Your task to perform on an android device: Is it going to rain this weekend? Image 0: 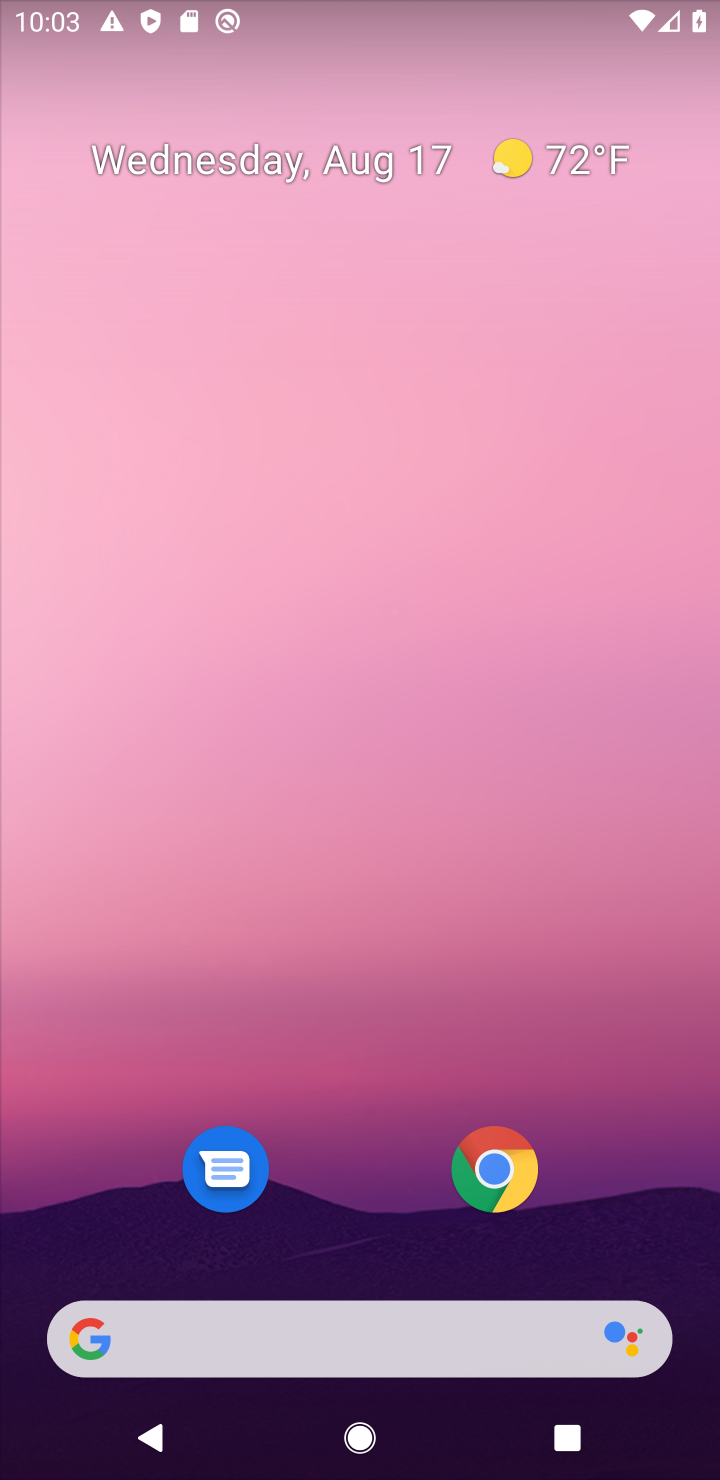
Step 0: drag from (313, 1069) to (350, 2)
Your task to perform on an android device: Is it going to rain this weekend? Image 1: 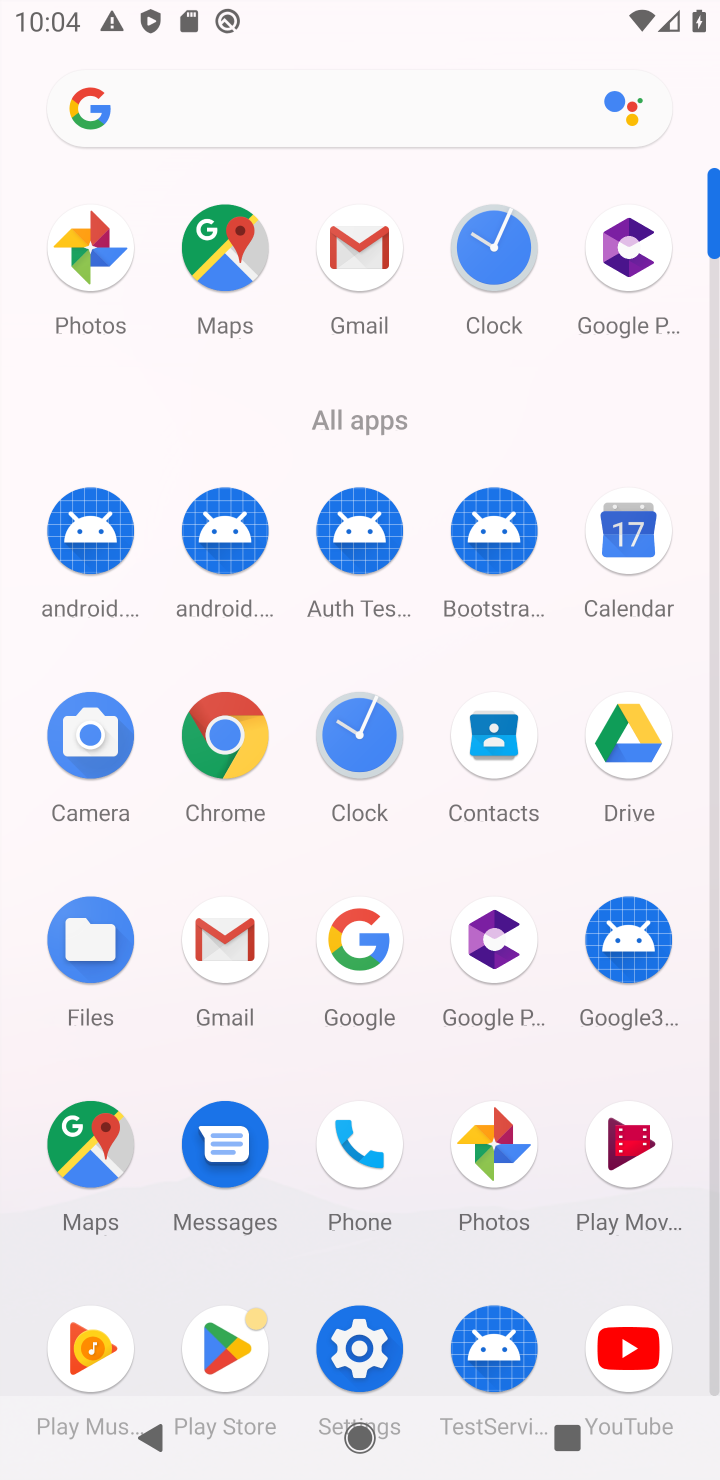
Step 1: click (352, 963)
Your task to perform on an android device: Is it going to rain this weekend? Image 2: 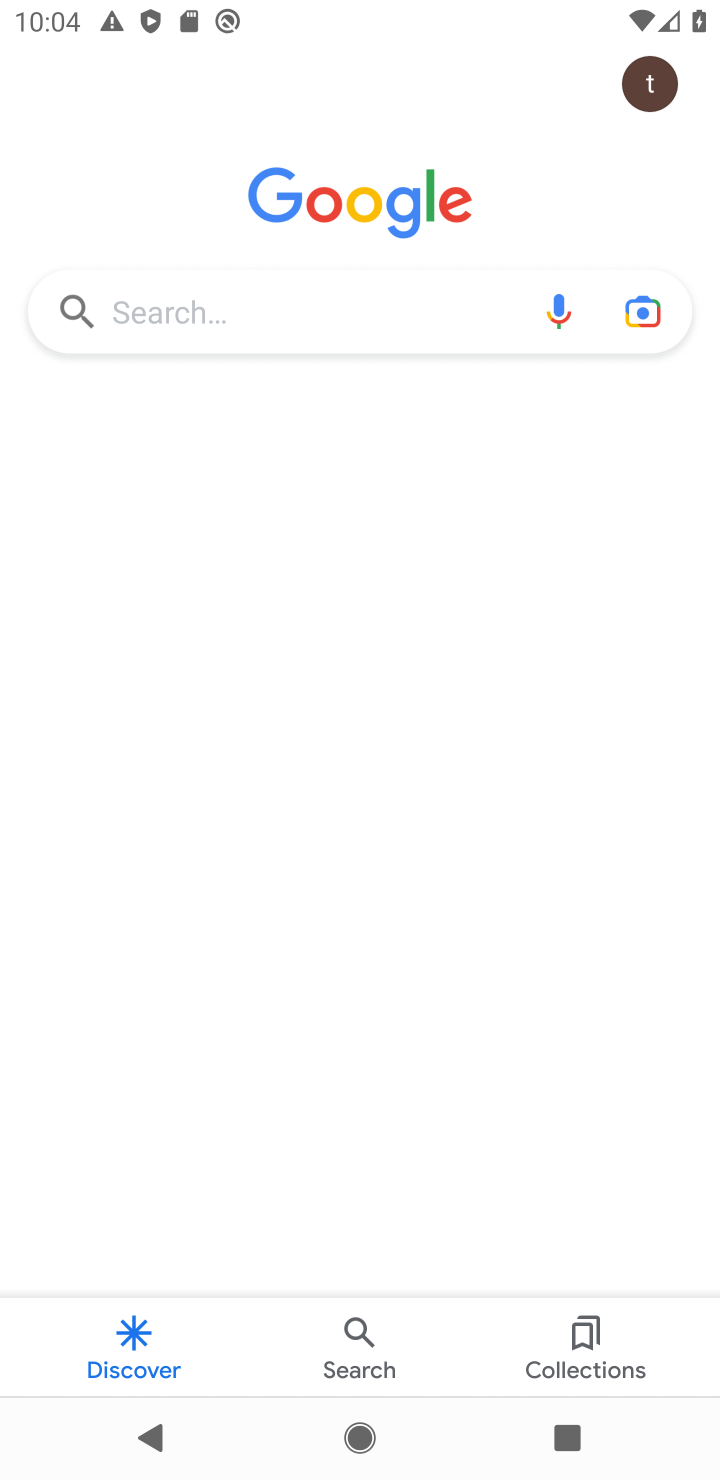
Step 2: click (204, 311)
Your task to perform on an android device: Is it going to rain this weekend? Image 3: 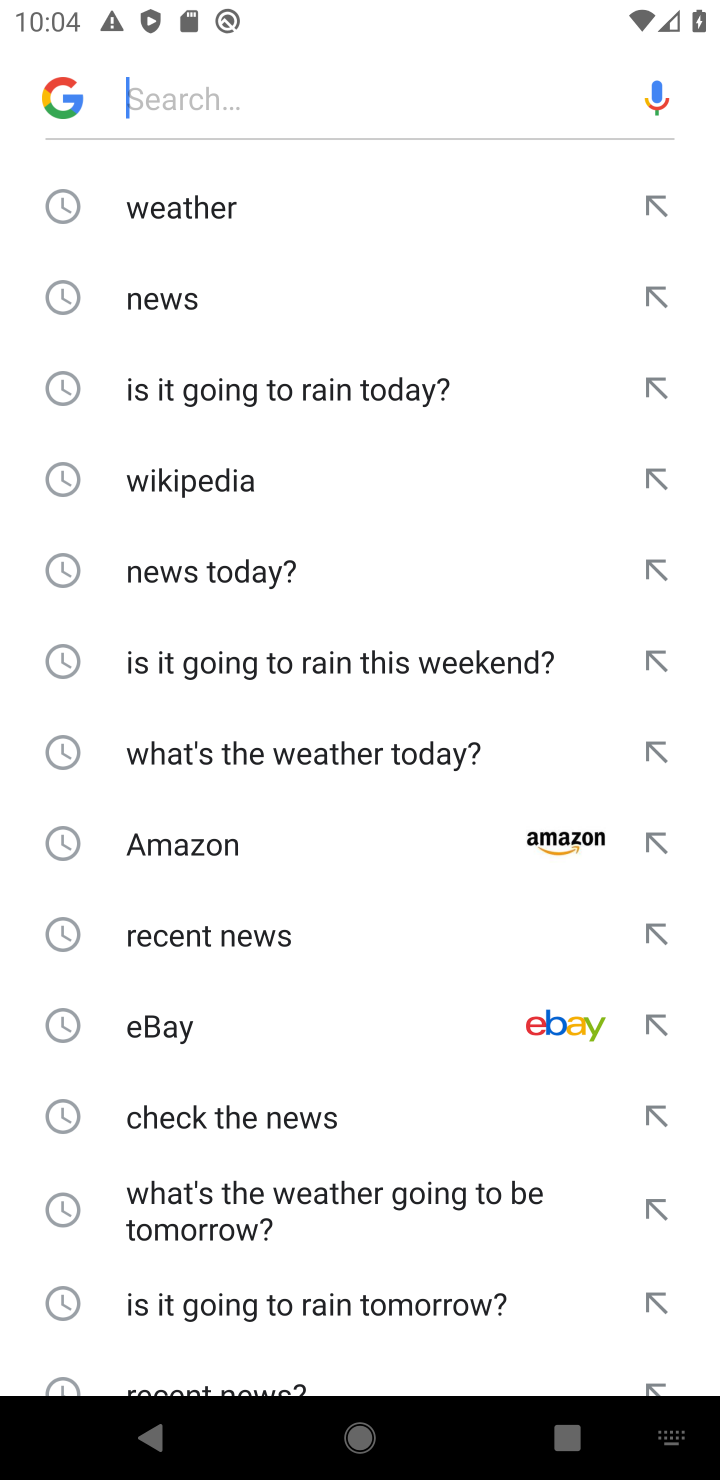
Step 3: type "Is it going to rain this weekend?"
Your task to perform on an android device: Is it going to rain this weekend? Image 4: 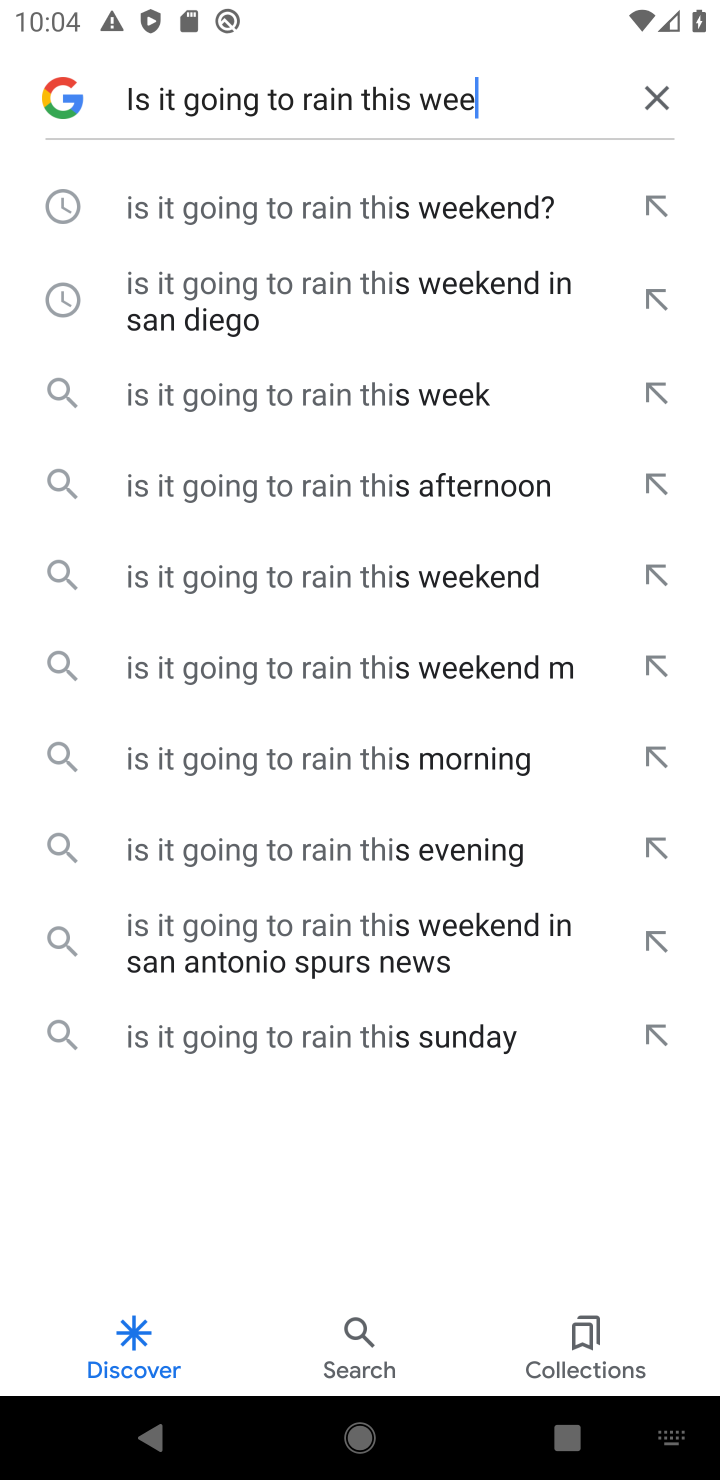
Step 4: press enter
Your task to perform on an android device: Is it going to rain this weekend? Image 5: 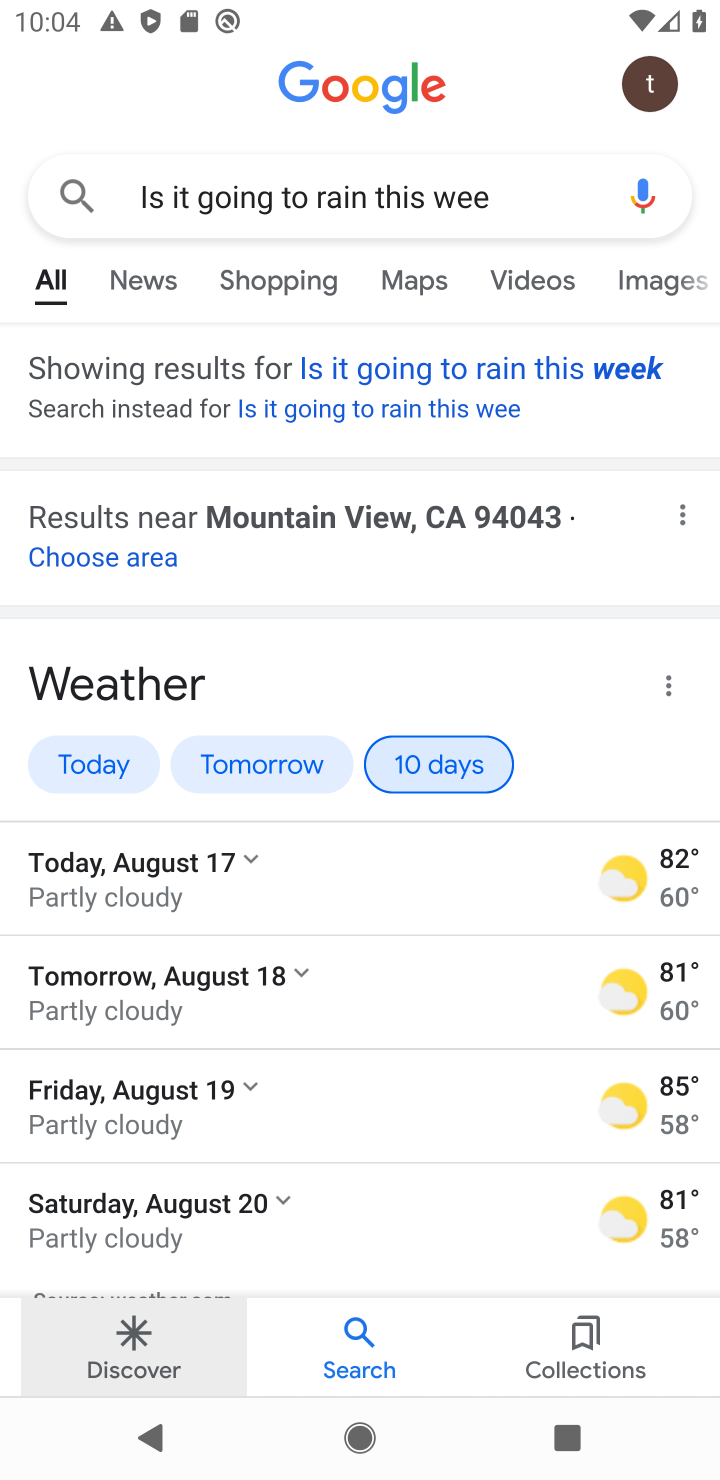
Step 5: task complete